Your task to perform on an android device: turn off data saver in the chrome app Image 0: 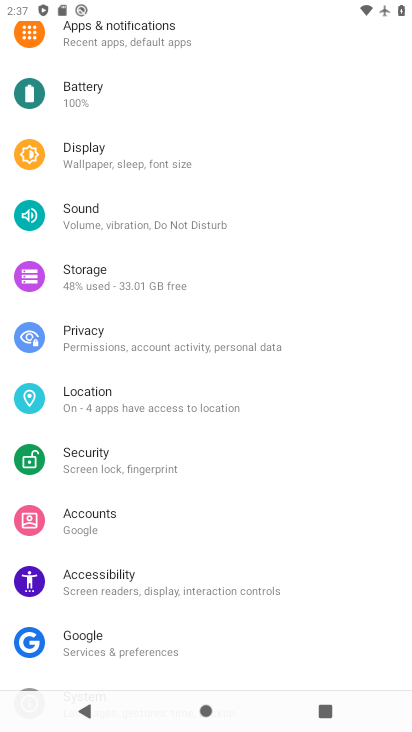
Step 0: press home button
Your task to perform on an android device: turn off data saver in the chrome app Image 1: 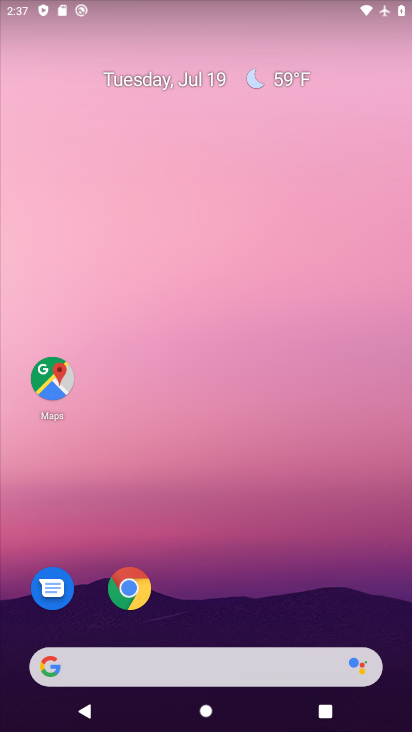
Step 1: drag from (238, 615) to (233, 0)
Your task to perform on an android device: turn off data saver in the chrome app Image 2: 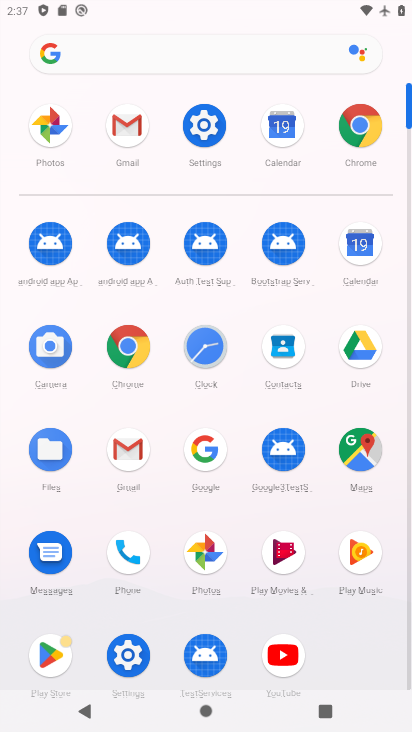
Step 2: click (363, 133)
Your task to perform on an android device: turn off data saver in the chrome app Image 3: 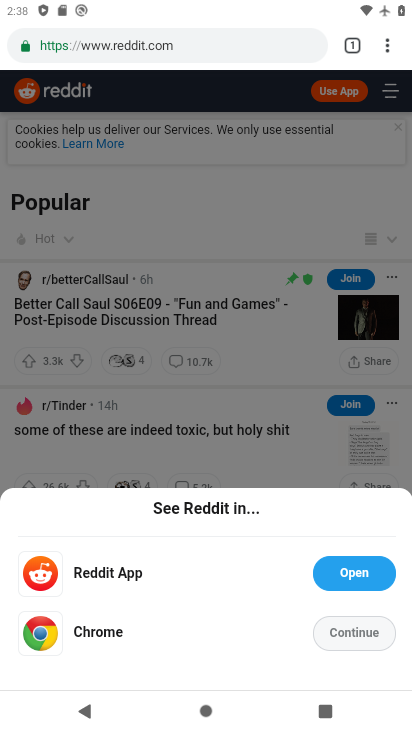
Step 3: drag from (388, 54) to (411, 87)
Your task to perform on an android device: turn off data saver in the chrome app Image 4: 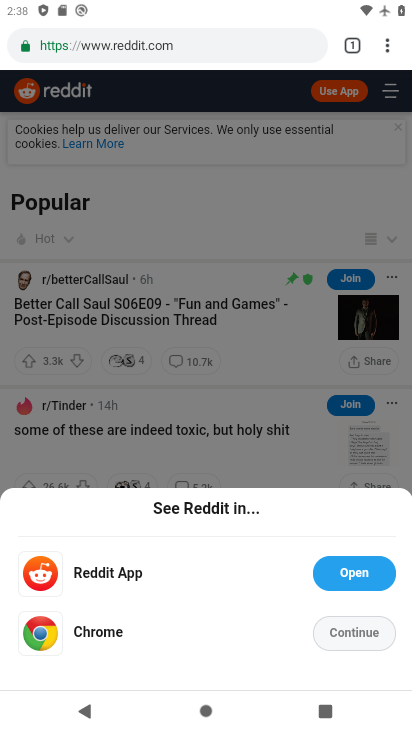
Step 4: drag from (386, 50) to (256, 528)
Your task to perform on an android device: turn off data saver in the chrome app Image 5: 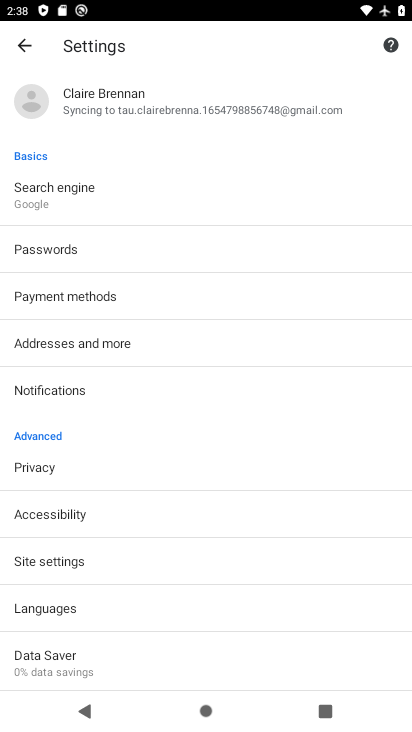
Step 5: click (53, 653)
Your task to perform on an android device: turn off data saver in the chrome app Image 6: 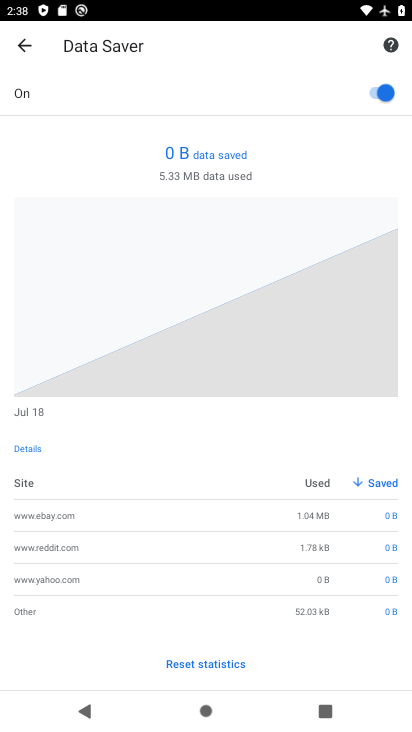
Step 6: click (387, 85)
Your task to perform on an android device: turn off data saver in the chrome app Image 7: 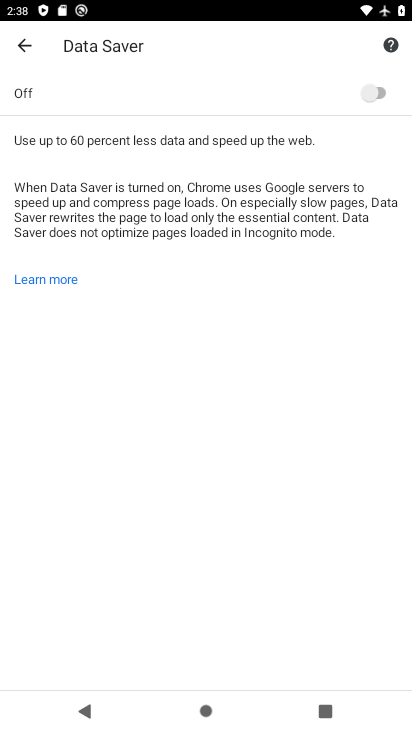
Step 7: task complete